Your task to perform on an android device: Do I have any events this weekend? Image 0: 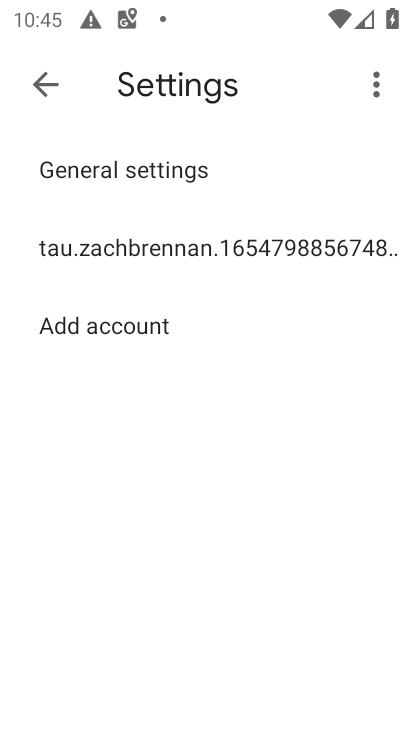
Step 0: press home button
Your task to perform on an android device: Do I have any events this weekend? Image 1: 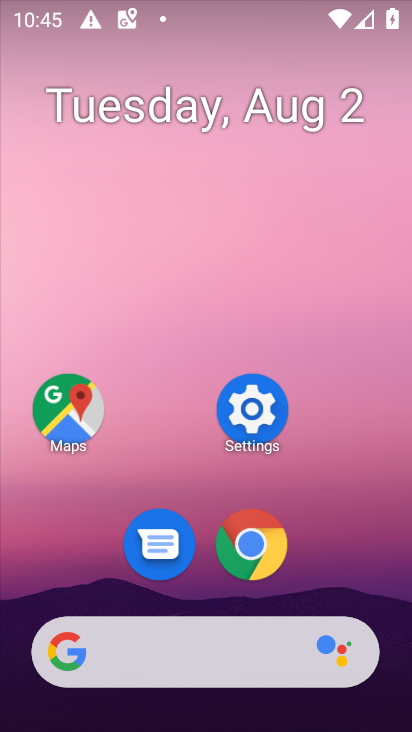
Step 1: drag from (222, 634) to (277, 132)
Your task to perform on an android device: Do I have any events this weekend? Image 2: 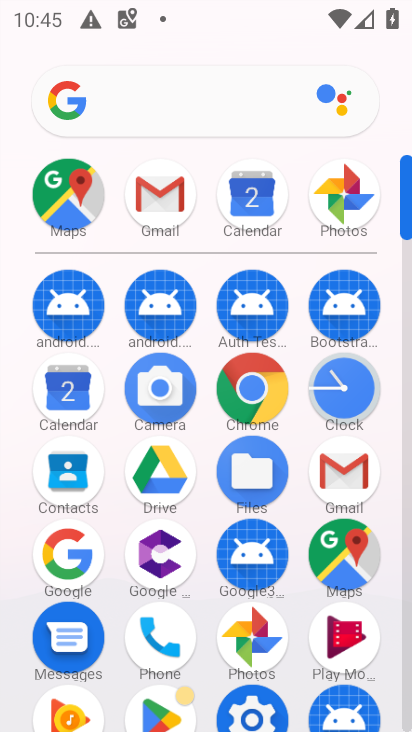
Step 2: click (150, 207)
Your task to perform on an android device: Do I have any events this weekend? Image 3: 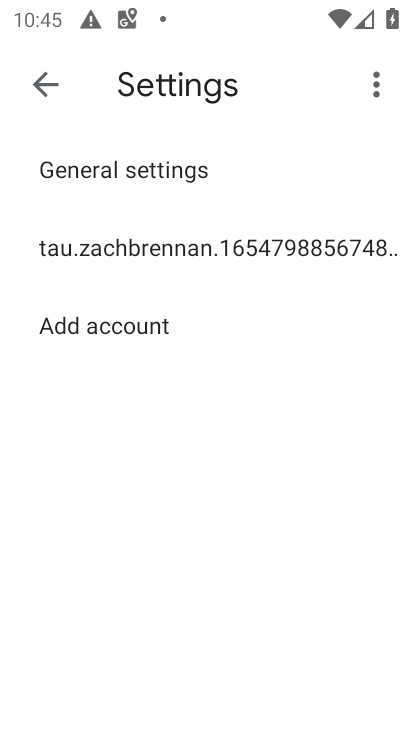
Step 3: press home button
Your task to perform on an android device: Do I have any events this weekend? Image 4: 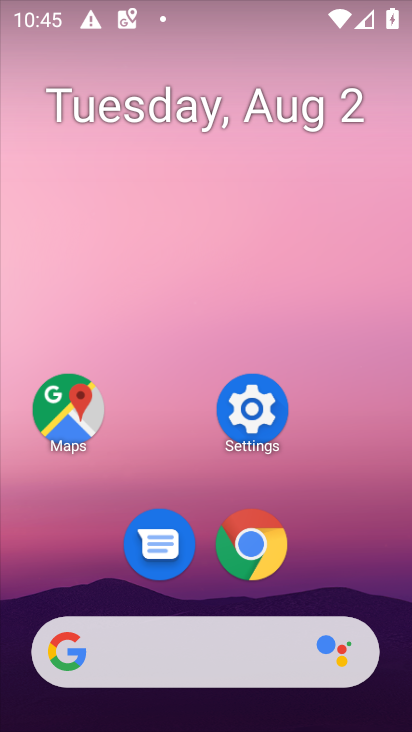
Step 4: drag from (240, 610) to (316, 81)
Your task to perform on an android device: Do I have any events this weekend? Image 5: 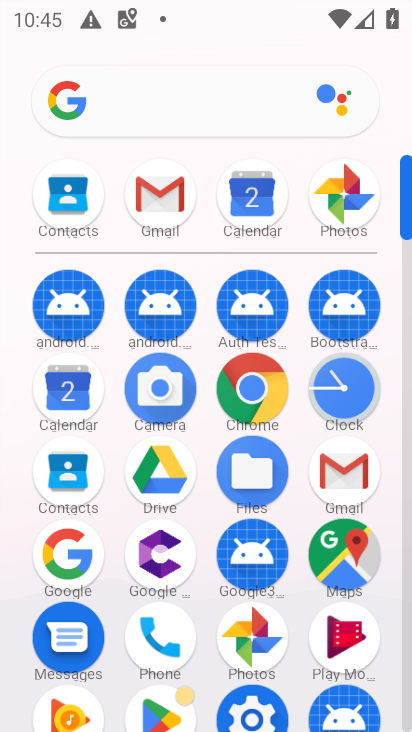
Step 5: click (66, 389)
Your task to perform on an android device: Do I have any events this weekend? Image 6: 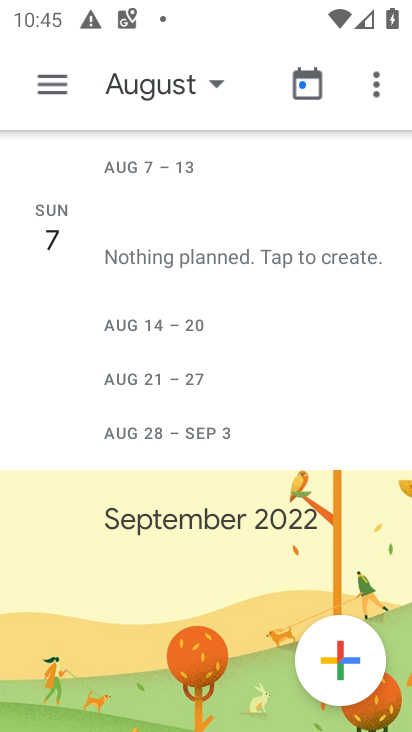
Step 6: click (160, 87)
Your task to perform on an android device: Do I have any events this weekend? Image 7: 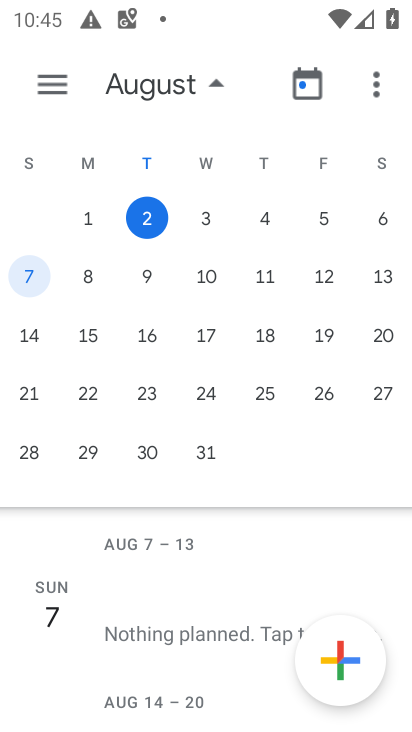
Step 7: click (381, 216)
Your task to perform on an android device: Do I have any events this weekend? Image 8: 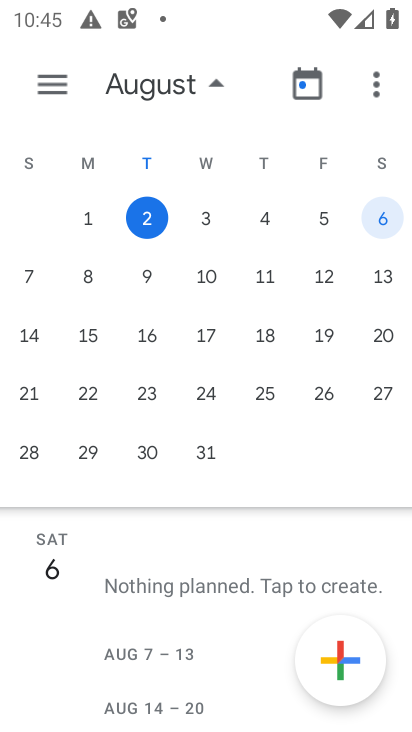
Step 8: click (45, 78)
Your task to perform on an android device: Do I have any events this weekend? Image 9: 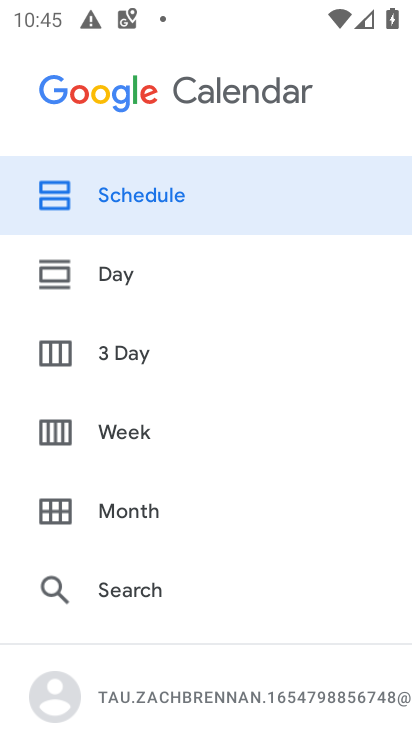
Step 9: click (108, 278)
Your task to perform on an android device: Do I have any events this weekend? Image 10: 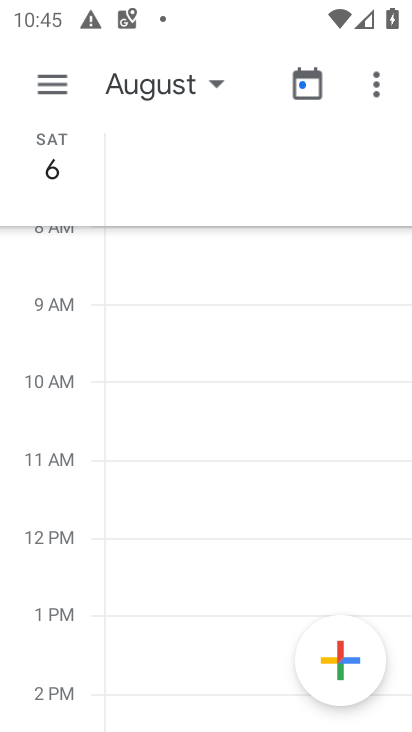
Step 10: click (48, 78)
Your task to perform on an android device: Do I have any events this weekend? Image 11: 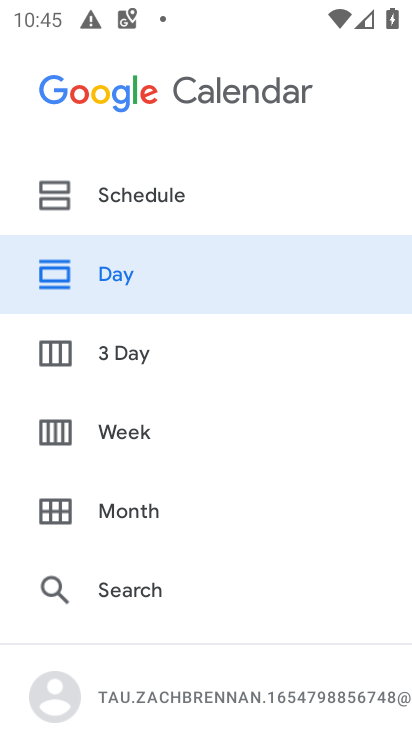
Step 11: click (146, 196)
Your task to perform on an android device: Do I have any events this weekend? Image 12: 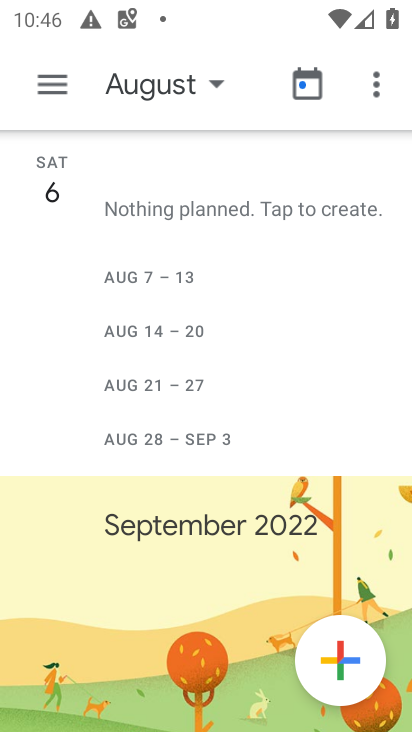
Step 12: task complete